Your task to perform on an android device: clear history in the chrome app Image 0: 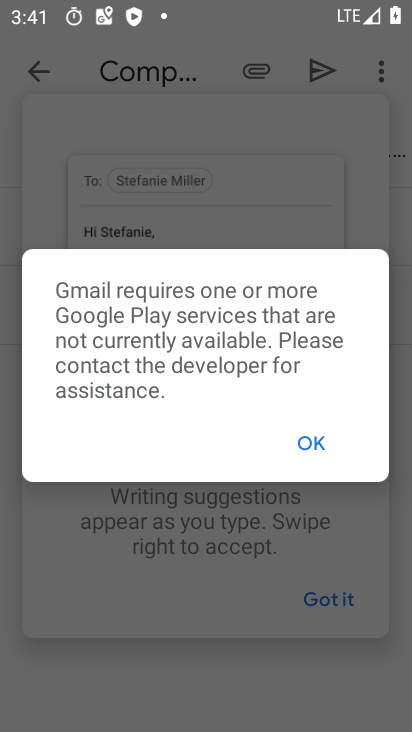
Step 0: press home button
Your task to perform on an android device: clear history in the chrome app Image 1: 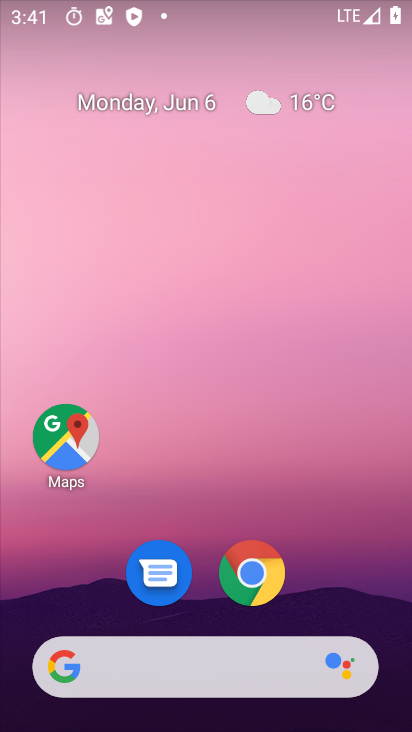
Step 1: drag from (325, 591) to (325, 234)
Your task to perform on an android device: clear history in the chrome app Image 2: 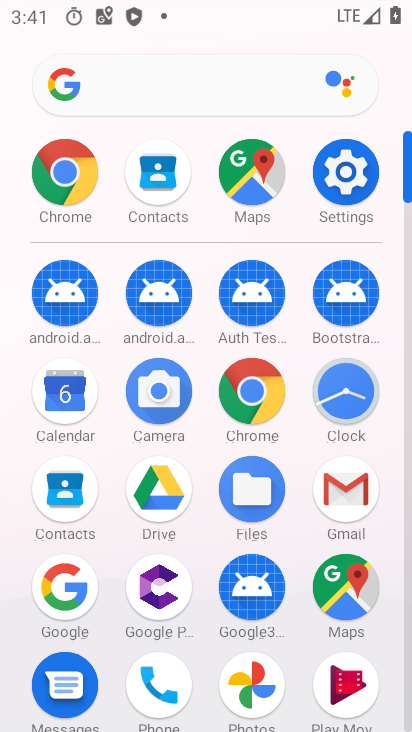
Step 2: click (265, 396)
Your task to perform on an android device: clear history in the chrome app Image 3: 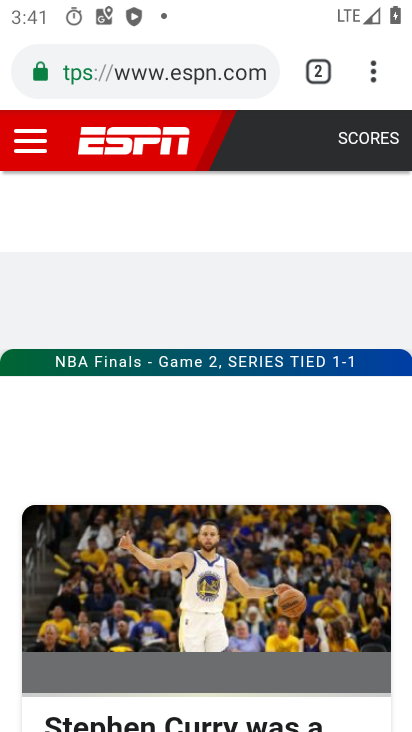
Step 3: click (370, 82)
Your task to perform on an android device: clear history in the chrome app Image 4: 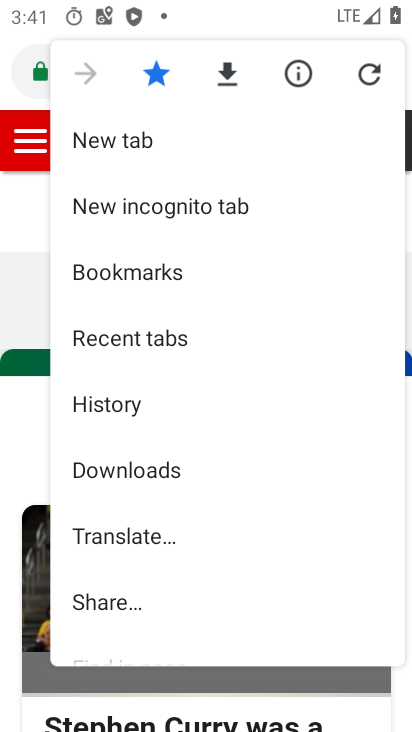
Step 4: click (181, 421)
Your task to perform on an android device: clear history in the chrome app Image 5: 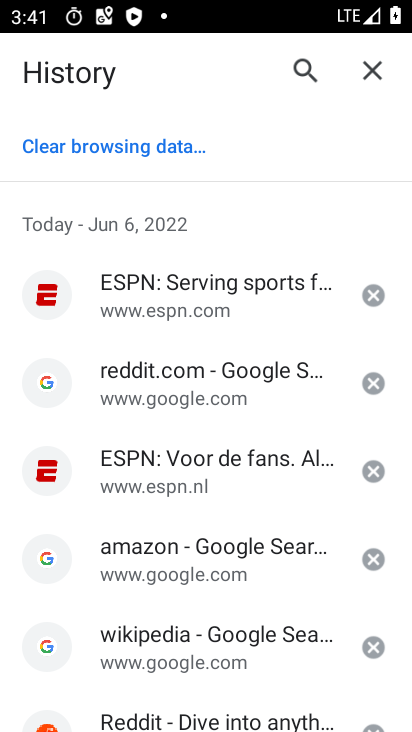
Step 5: click (149, 163)
Your task to perform on an android device: clear history in the chrome app Image 6: 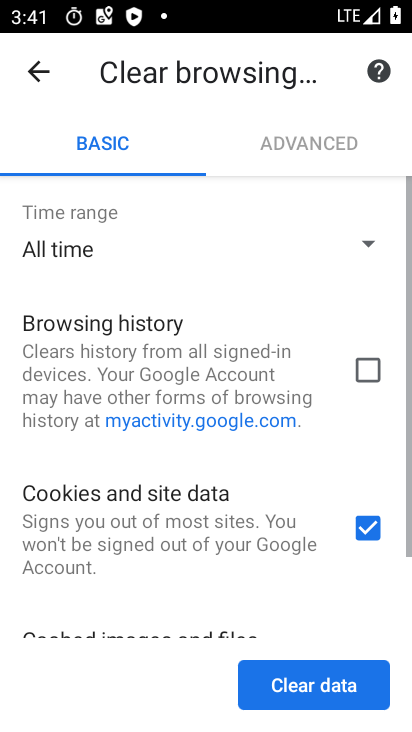
Step 6: click (376, 374)
Your task to perform on an android device: clear history in the chrome app Image 7: 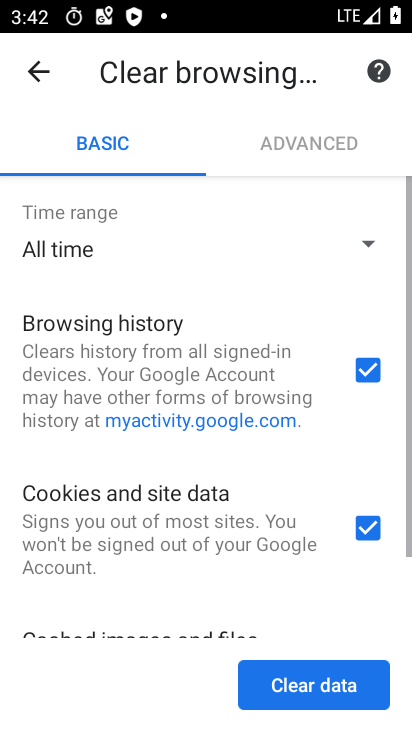
Step 7: click (323, 687)
Your task to perform on an android device: clear history in the chrome app Image 8: 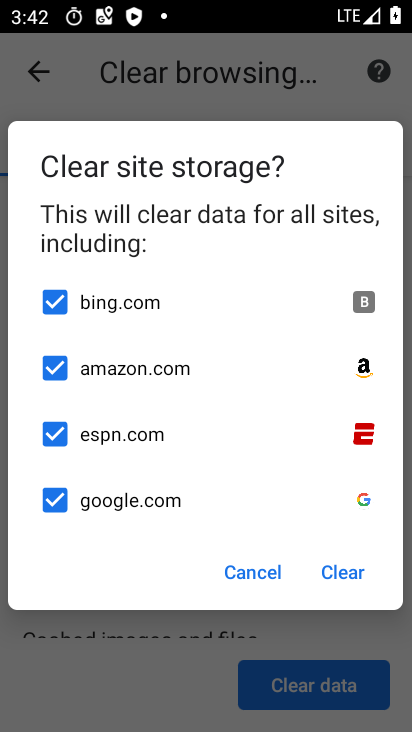
Step 8: click (343, 581)
Your task to perform on an android device: clear history in the chrome app Image 9: 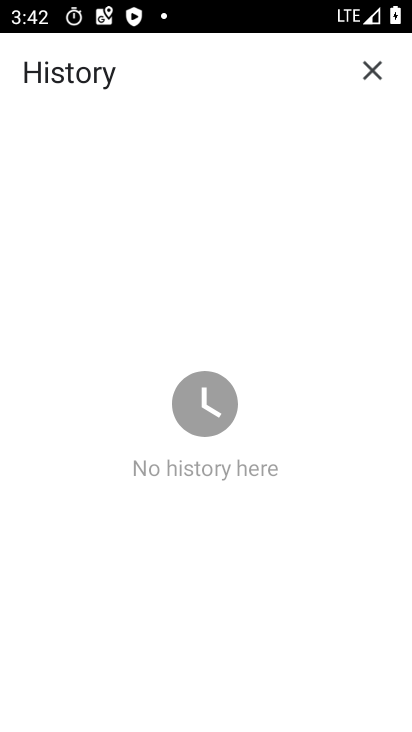
Step 9: task complete